Your task to perform on an android device: open a new tab in the chrome app Image 0: 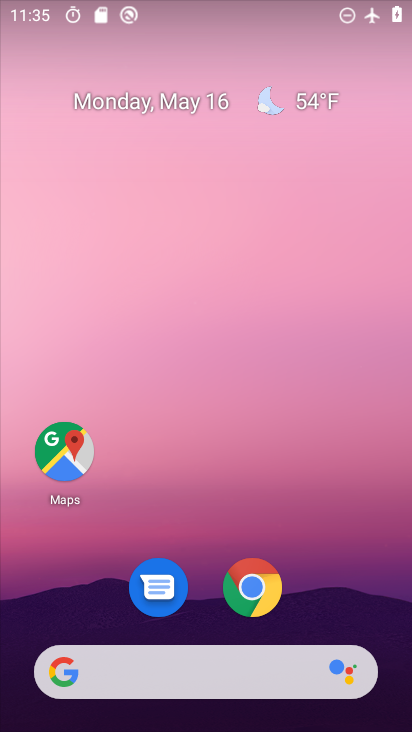
Step 0: click (249, 590)
Your task to perform on an android device: open a new tab in the chrome app Image 1: 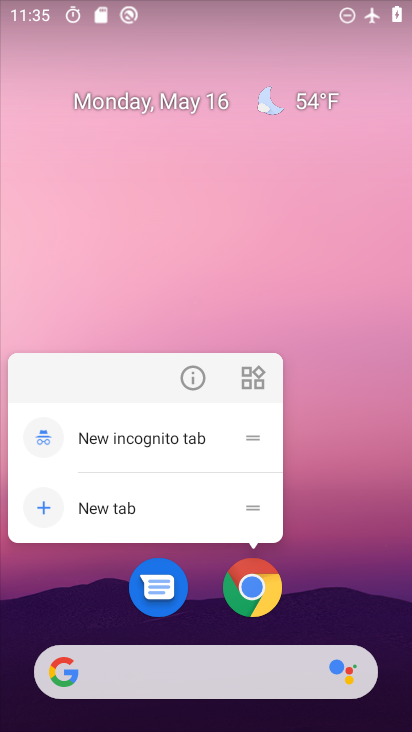
Step 1: click (190, 385)
Your task to perform on an android device: open a new tab in the chrome app Image 2: 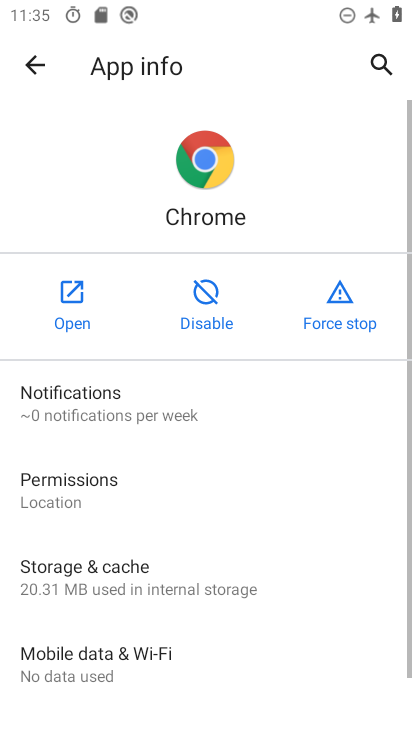
Step 2: click (78, 313)
Your task to perform on an android device: open a new tab in the chrome app Image 3: 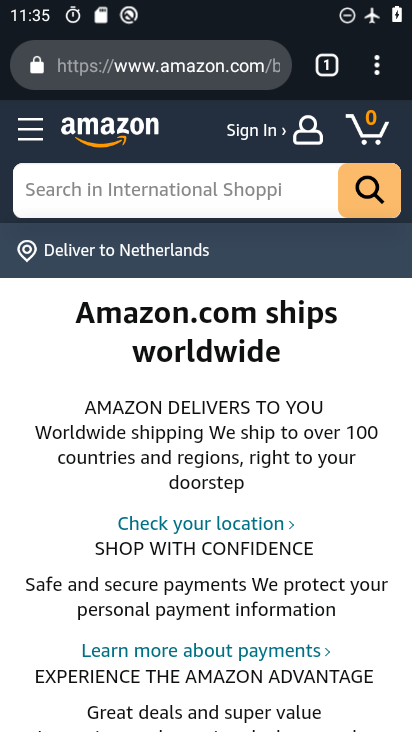
Step 3: drag from (220, 427) to (256, 56)
Your task to perform on an android device: open a new tab in the chrome app Image 4: 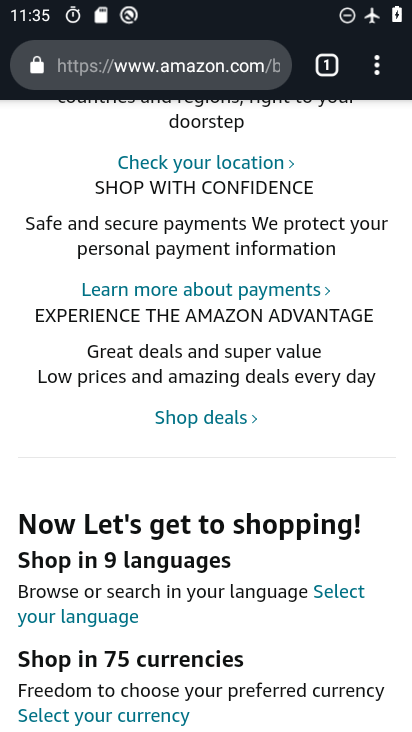
Step 4: click (329, 59)
Your task to perform on an android device: open a new tab in the chrome app Image 5: 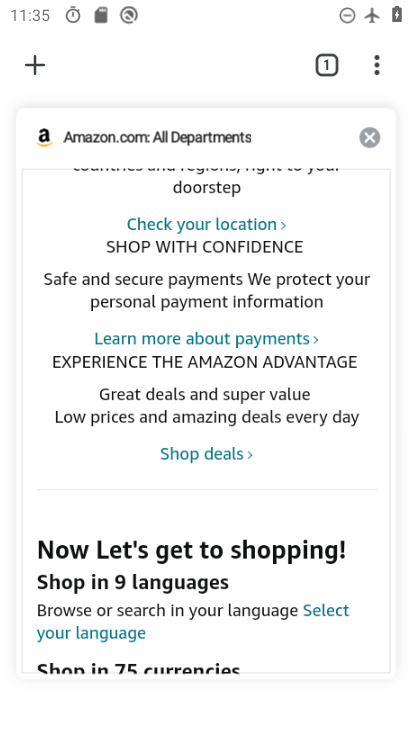
Step 5: click (36, 68)
Your task to perform on an android device: open a new tab in the chrome app Image 6: 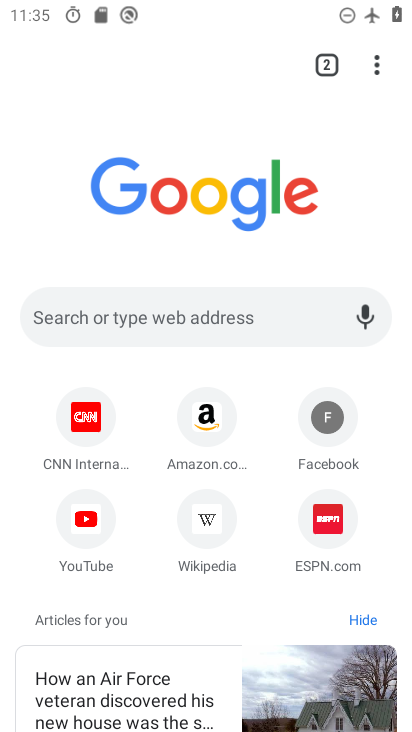
Step 6: task complete